Your task to perform on an android device: open sync settings in chrome Image 0: 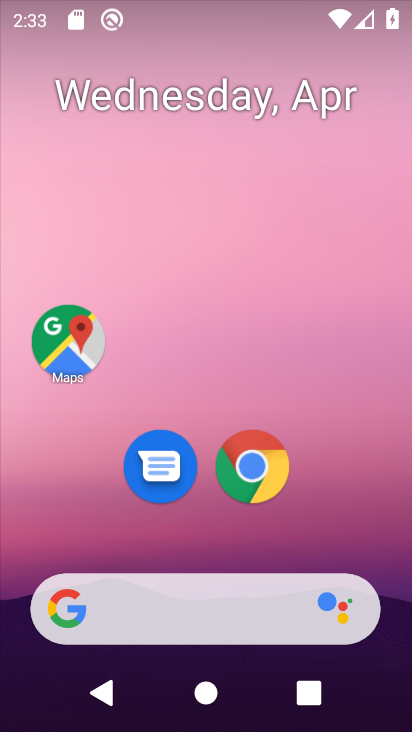
Step 0: click (252, 463)
Your task to perform on an android device: open sync settings in chrome Image 1: 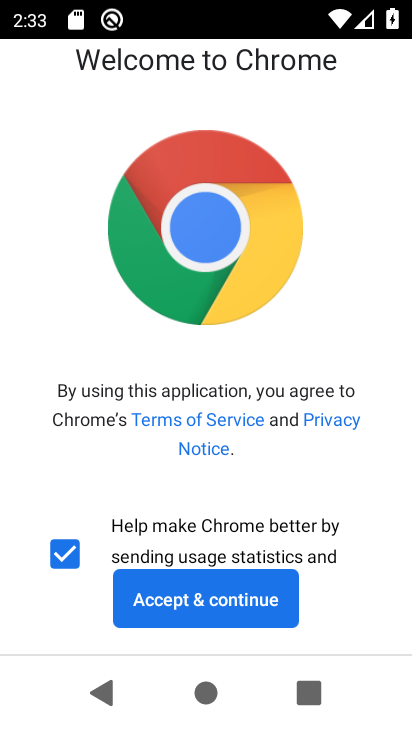
Step 1: click (219, 609)
Your task to perform on an android device: open sync settings in chrome Image 2: 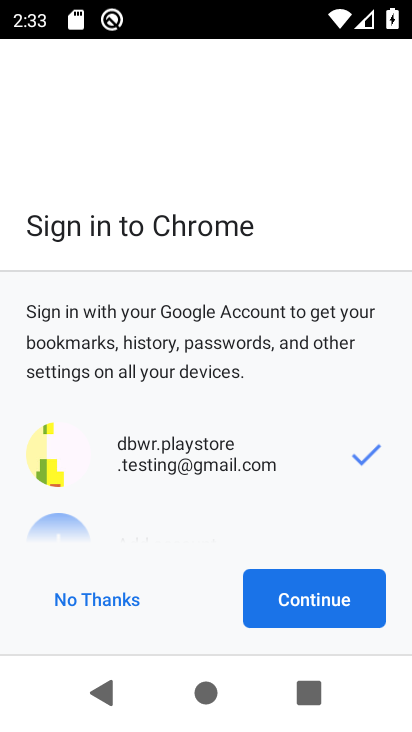
Step 2: click (280, 596)
Your task to perform on an android device: open sync settings in chrome Image 3: 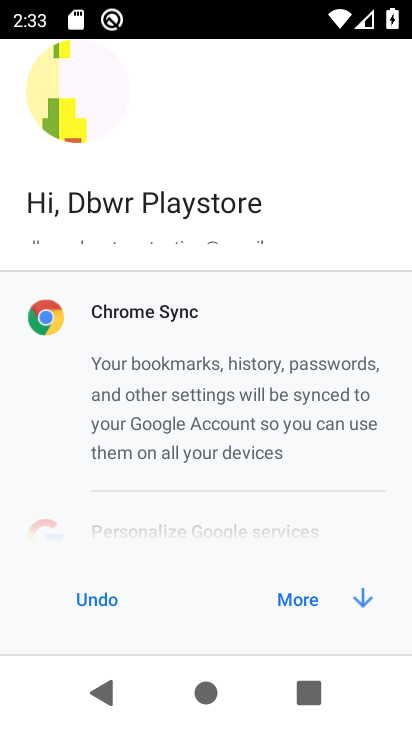
Step 3: click (317, 603)
Your task to perform on an android device: open sync settings in chrome Image 4: 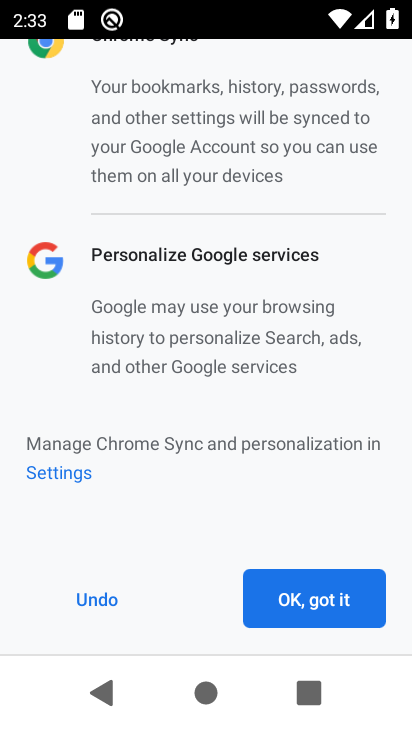
Step 4: click (338, 602)
Your task to perform on an android device: open sync settings in chrome Image 5: 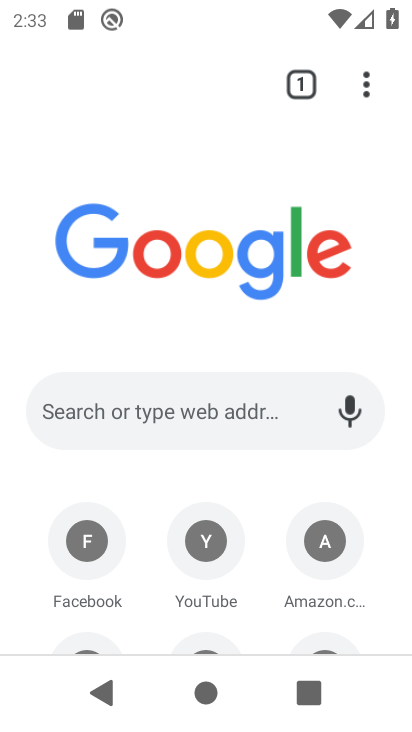
Step 5: click (362, 83)
Your task to perform on an android device: open sync settings in chrome Image 6: 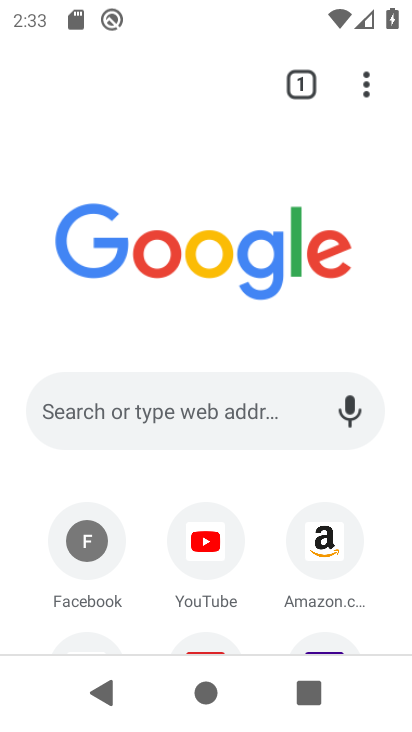
Step 6: click (365, 85)
Your task to perform on an android device: open sync settings in chrome Image 7: 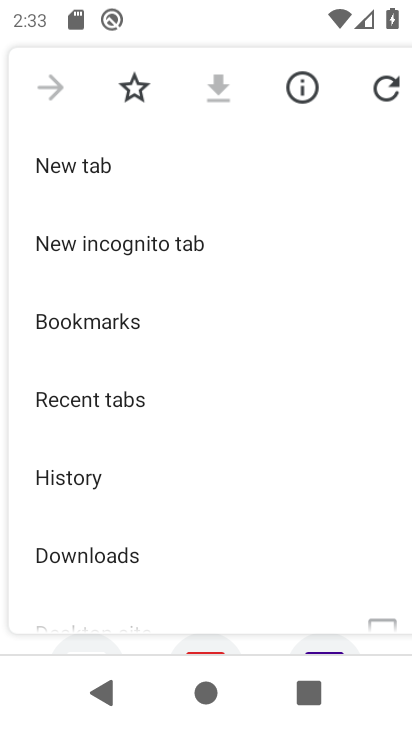
Step 7: drag from (176, 507) to (155, 2)
Your task to perform on an android device: open sync settings in chrome Image 8: 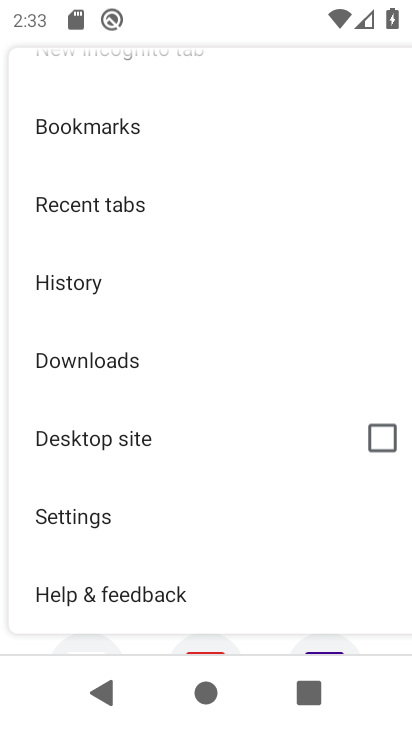
Step 8: click (88, 517)
Your task to perform on an android device: open sync settings in chrome Image 9: 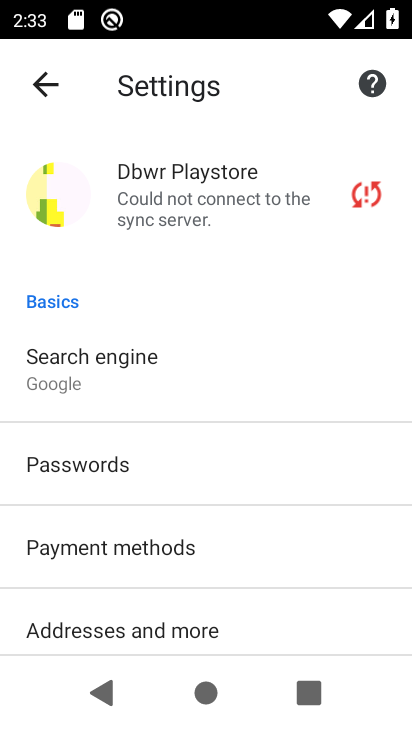
Step 9: click (152, 201)
Your task to perform on an android device: open sync settings in chrome Image 10: 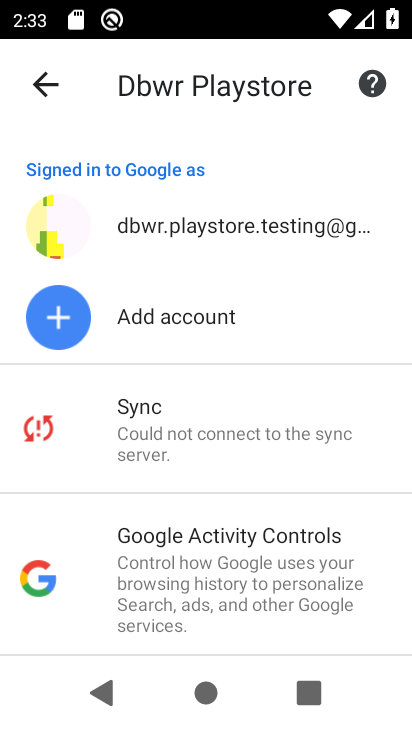
Step 10: click (151, 407)
Your task to perform on an android device: open sync settings in chrome Image 11: 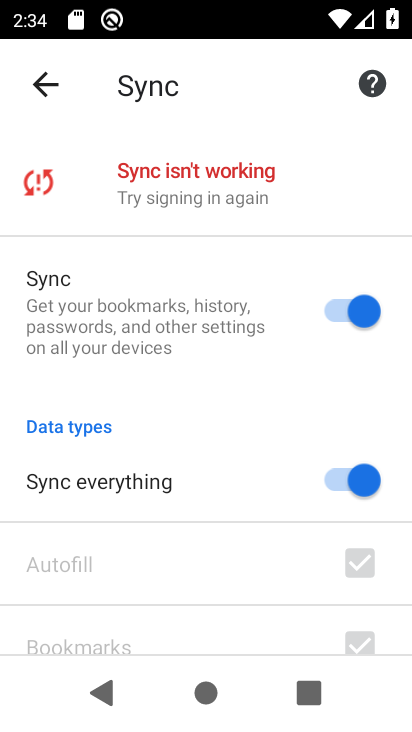
Step 11: task complete